Your task to perform on an android device: Add usb-c to the cart on ebay Image 0: 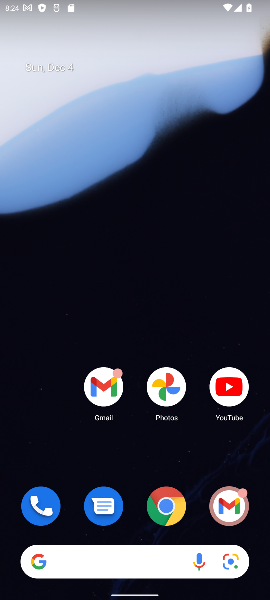
Step 0: click (168, 515)
Your task to perform on an android device: Add usb-c to the cart on ebay Image 1: 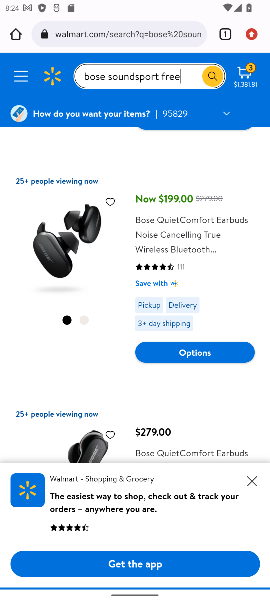
Step 1: click (91, 28)
Your task to perform on an android device: Add usb-c to the cart on ebay Image 2: 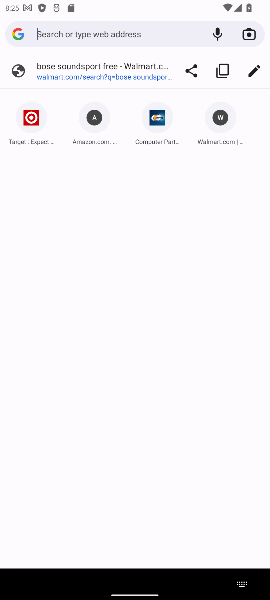
Step 2: type "ebay"
Your task to perform on an android device: Add usb-c to the cart on ebay Image 3: 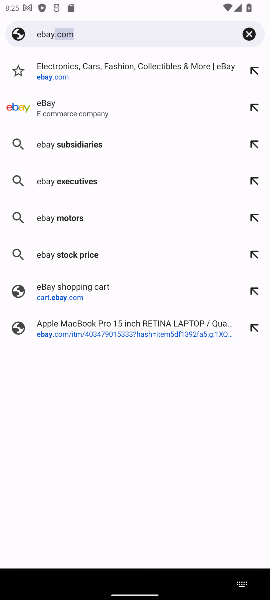
Step 3: click (54, 112)
Your task to perform on an android device: Add usb-c to the cart on ebay Image 4: 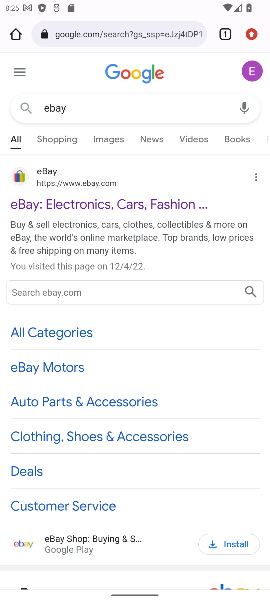
Step 4: click (95, 211)
Your task to perform on an android device: Add usb-c to the cart on ebay Image 5: 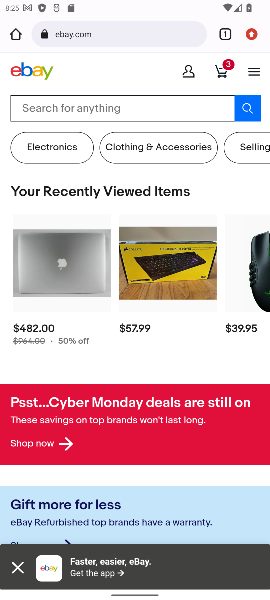
Step 5: click (71, 103)
Your task to perform on an android device: Add usb-c to the cart on ebay Image 6: 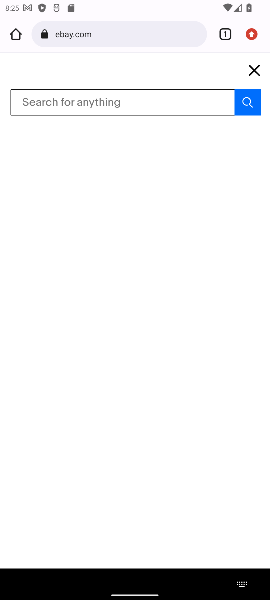
Step 6: type "usb-c "
Your task to perform on an android device: Add usb-c to the cart on ebay Image 7: 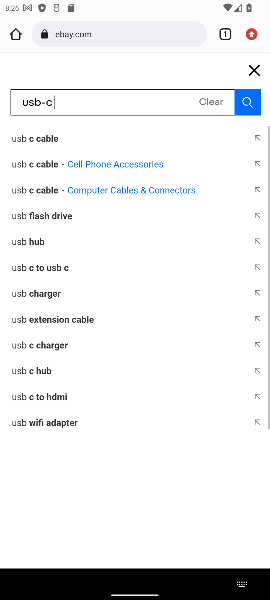
Step 7: click (243, 108)
Your task to perform on an android device: Add usb-c to the cart on ebay Image 8: 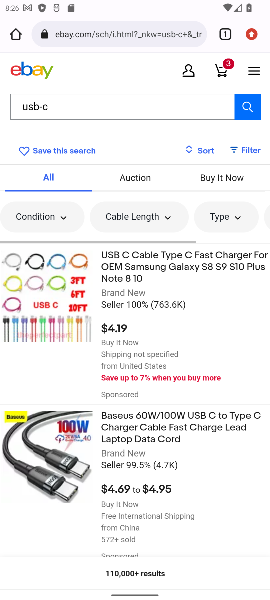
Step 8: click (170, 266)
Your task to perform on an android device: Add usb-c to the cart on ebay Image 9: 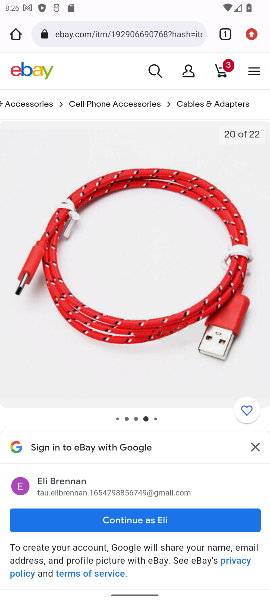
Step 9: drag from (116, 527) to (101, 211)
Your task to perform on an android device: Add usb-c to the cart on ebay Image 10: 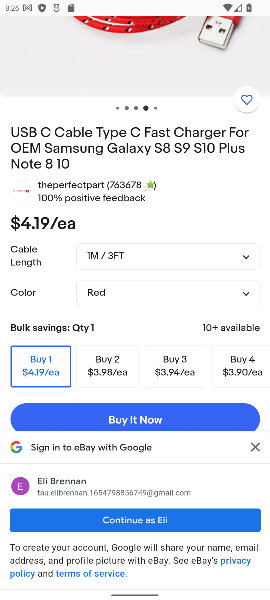
Step 10: drag from (103, 395) to (122, 111)
Your task to perform on an android device: Add usb-c to the cart on ebay Image 11: 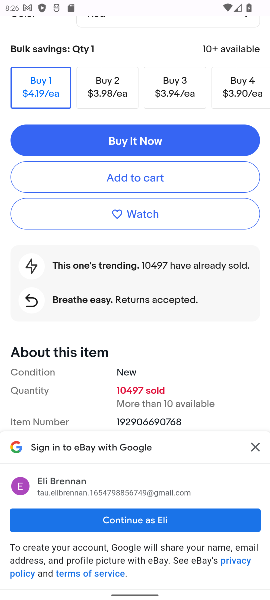
Step 11: click (151, 175)
Your task to perform on an android device: Add usb-c to the cart on ebay Image 12: 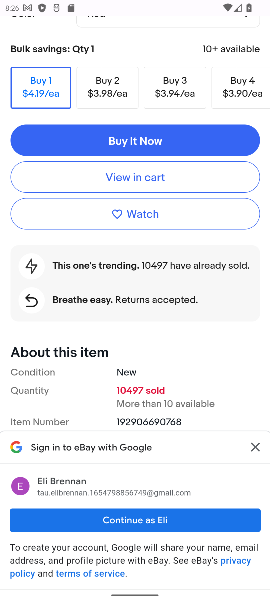
Step 12: task complete